Your task to perform on an android device: toggle notifications settings in the gmail app Image 0: 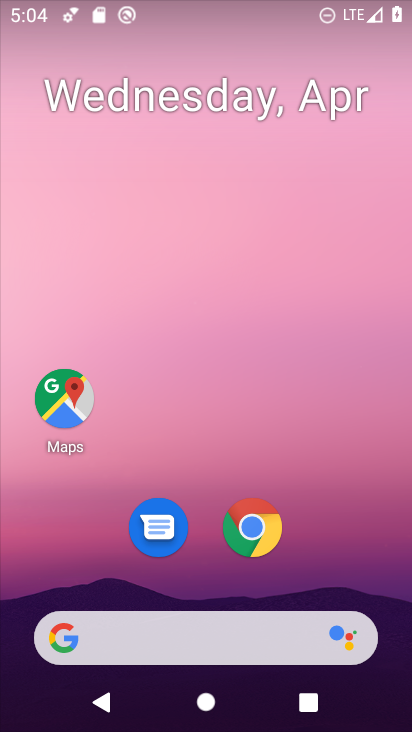
Step 0: drag from (386, 544) to (338, 3)
Your task to perform on an android device: toggle notifications settings in the gmail app Image 1: 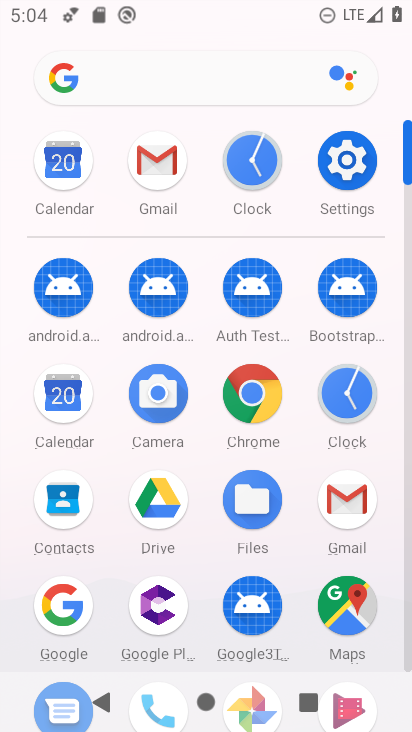
Step 1: click (164, 173)
Your task to perform on an android device: toggle notifications settings in the gmail app Image 2: 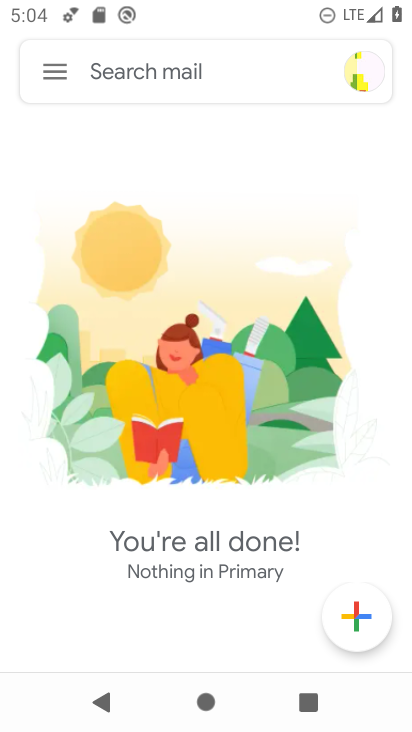
Step 2: click (48, 72)
Your task to perform on an android device: toggle notifications settings in the gmail app Image 3: 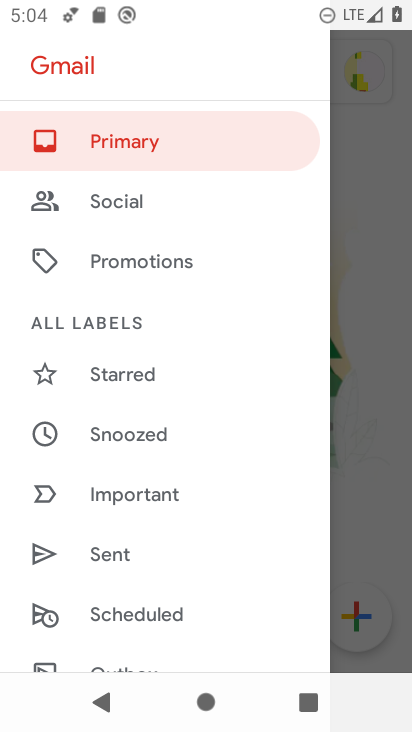
Step 3: drag from (247, 633) to (201, 16)
Your task to perform on an android device: toggle notifications settings in the gmail app Image 4: 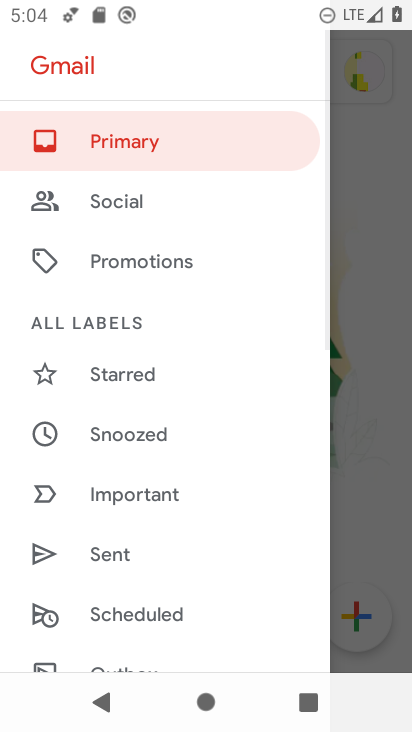
Step 4: drag from (185, 612) to (240, 94)
Your task to perform on an android device: toggle notifications settings in the gmail app Image 5: 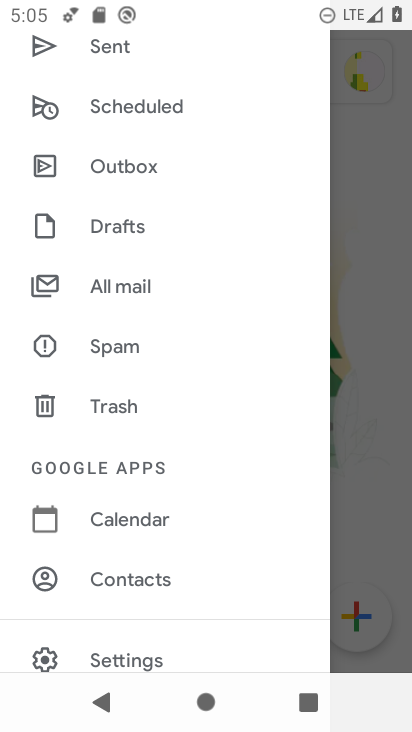
Step 5: drag from (217, 615) to (198, 348)
Your task to perform on an android device: toggle notifications settings in the gmail app Image 6: 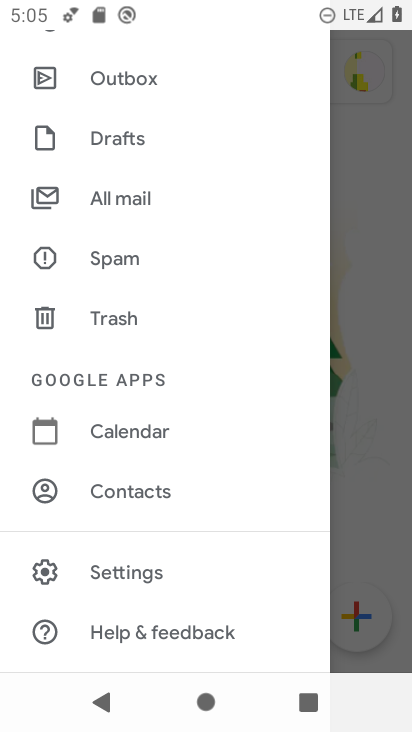
Step 6: click (103, 574)
Your task to perform on an android device: toggle notifications settings in the gmail app Image 7: 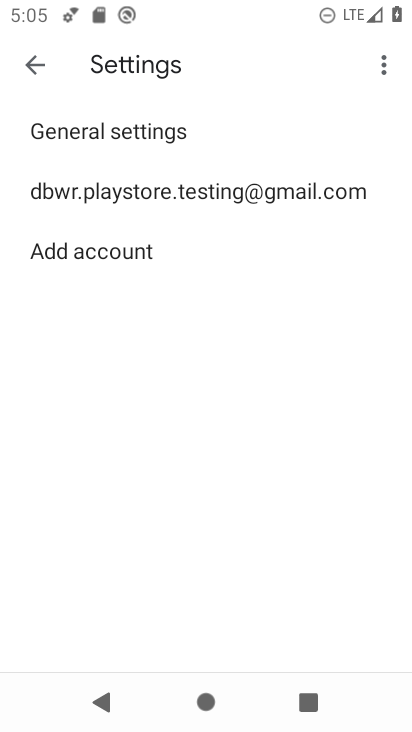
Step 7: click (95, 137)
Your task to perform on an android device: toggle notifications settings in the gmail app Image 8: 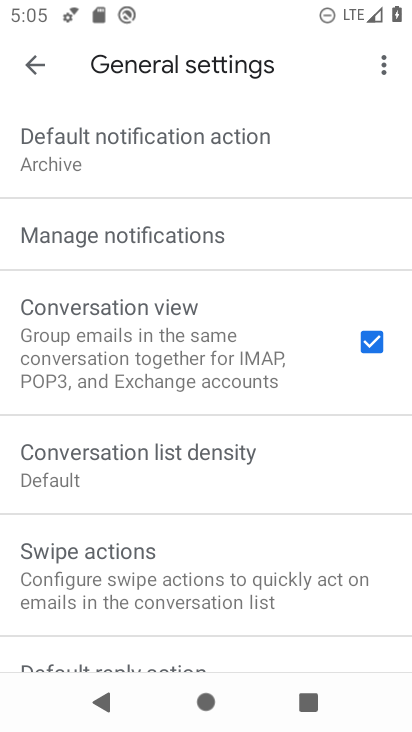
Step 8: click (84, 239)
Your task to perform on an android device: toggle notifications settings in the gmail app Image 9: 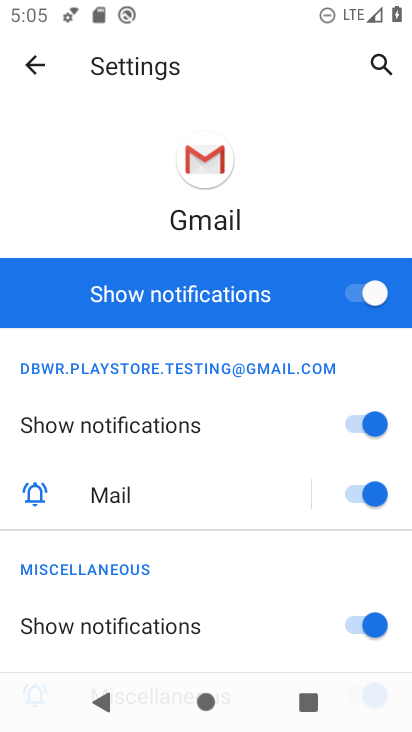
Step 9: click (377, 304)
Your task to perform on an android device: toggle notifications settings in the gmail app Image 10: 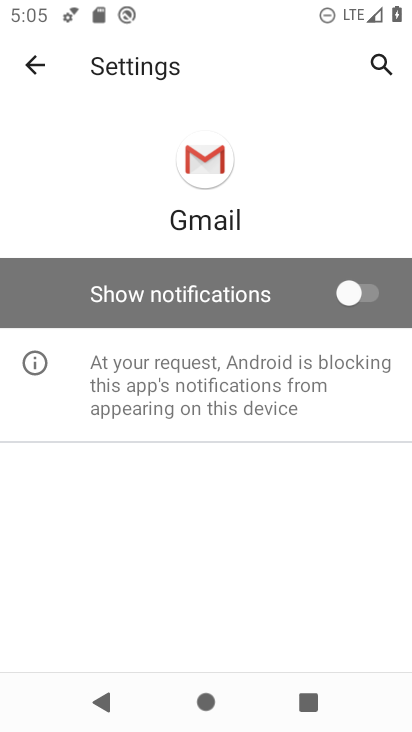
Step 10: task complete